Your task to perform on an android device: change notifications settings Image 0: 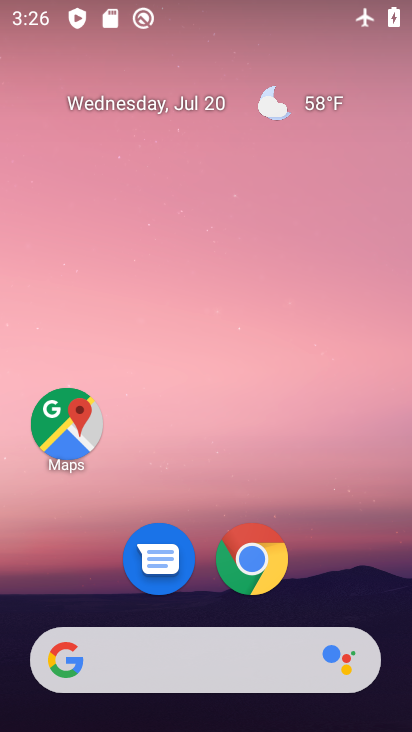
Step 0: drag from (88, 541) to (149, 46)
Your task to perform on an android device: change notifications settings Image 1: 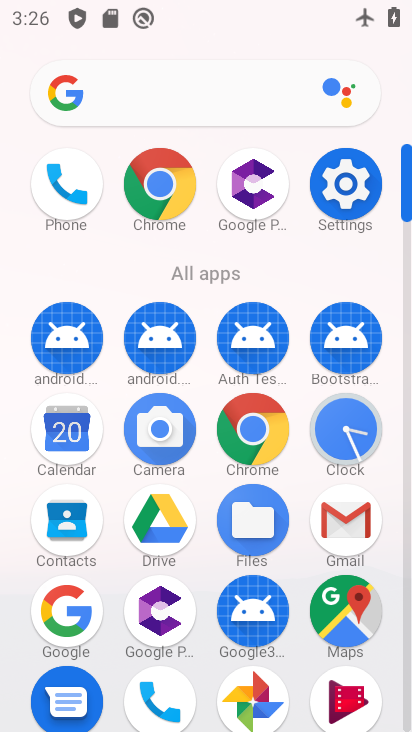
Step 1: click (351, 181)
Your task to perform on an android device: change notifications settings Image 2: 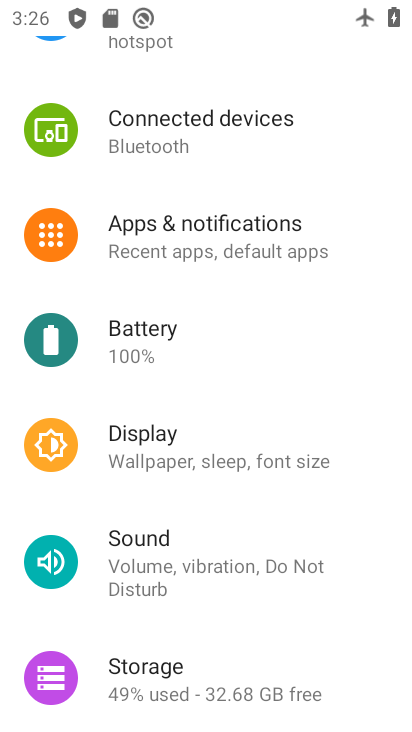
Step 2: click (238, 248)
Your task to perform on an android device: change notifications settings Image 3: 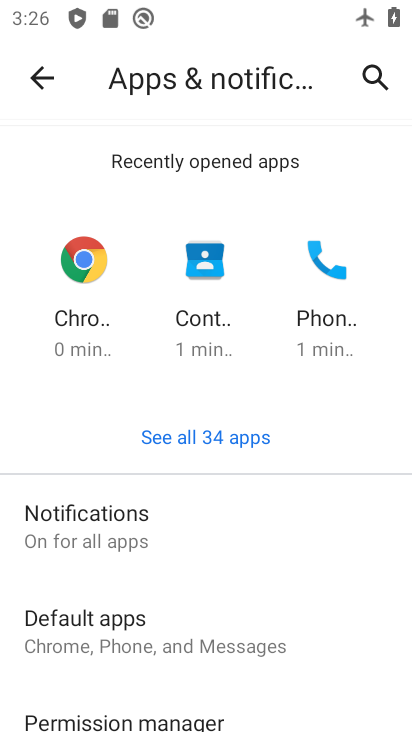
Step 3: click (129, 523)
Your task to perform on an android device: change notifications settings Image 4: 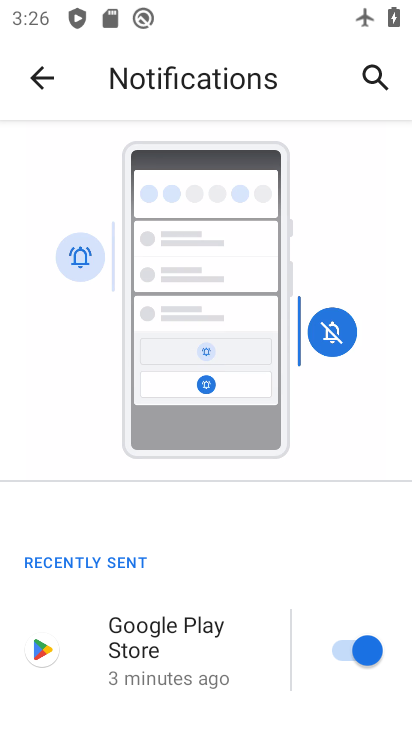
Step 4: drag from (156, 648) to (273, 99)
Your task to perform on an android device: change notifications settings Image 5: 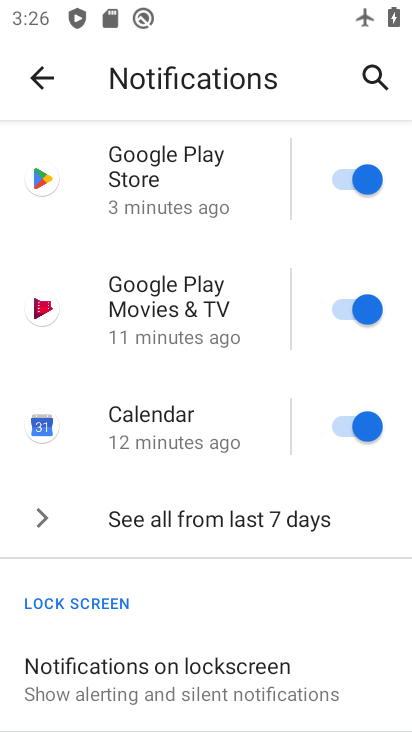
Step 5: drag from (203, 699) to (249, 110)
Your task to perform on an android device: change notifications settings Image 6: 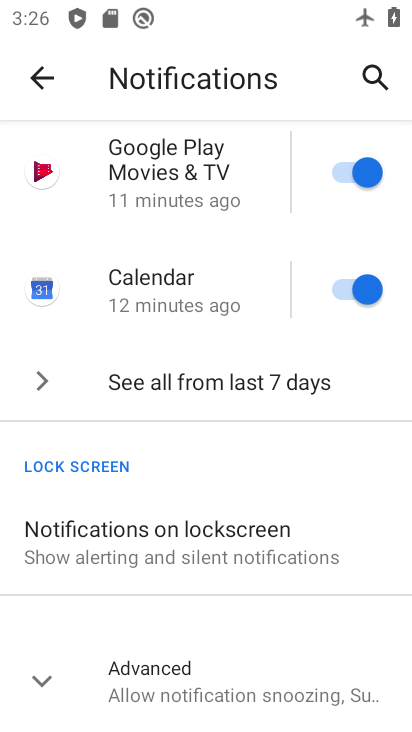
Step 6: click (161, 657)
Your task to perform on an android device: change notifications settings Image 7: 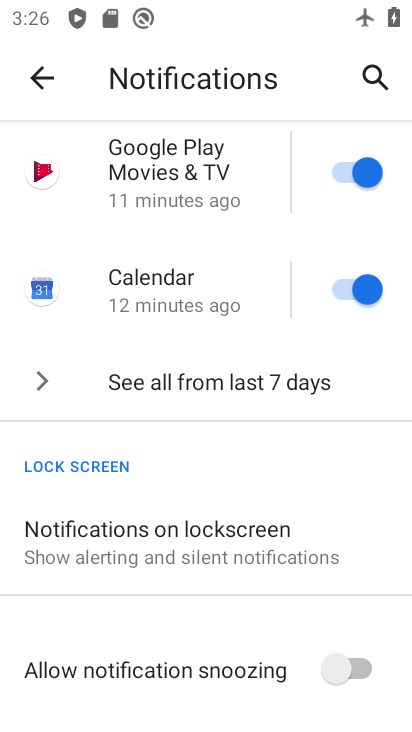
Step 7: click (353, 658)
Your task to perform on an android device: change notifications settings Image 8: 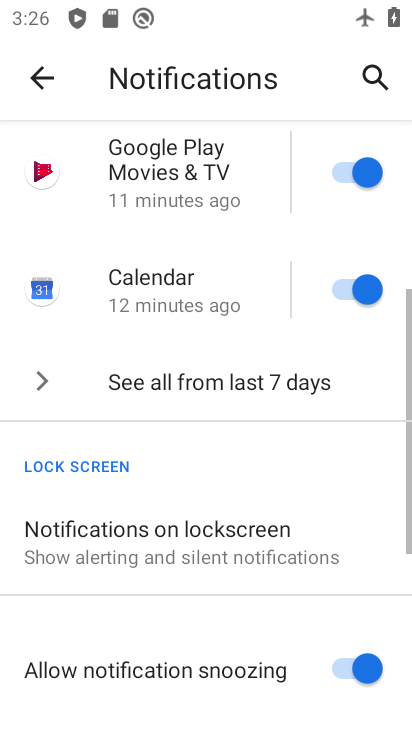
Step 8: task complete